Your task to perform on an android device: Set the phone to "Do not disturb". Image 0: 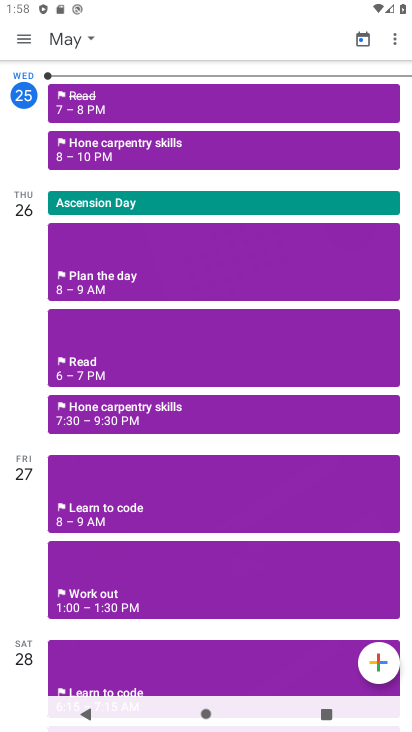
Step 0: click (125, 620)
Your task to perform on an android device: Set the phone to "Do not disturb". Image 1: 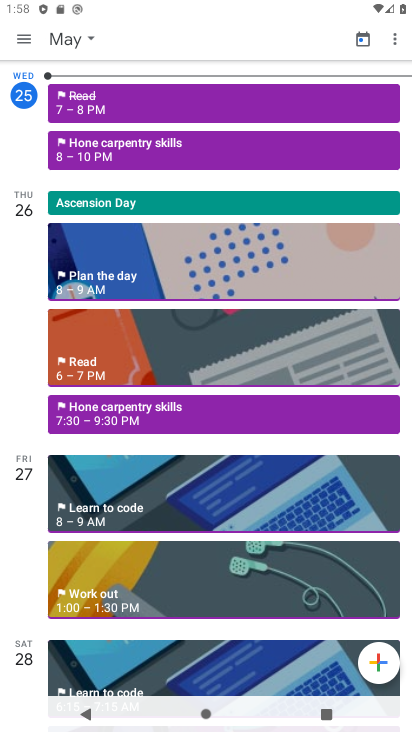
Step 1: press home button
Your task to perform on an android device: Set the phone to "Do not disturb". Image 2: 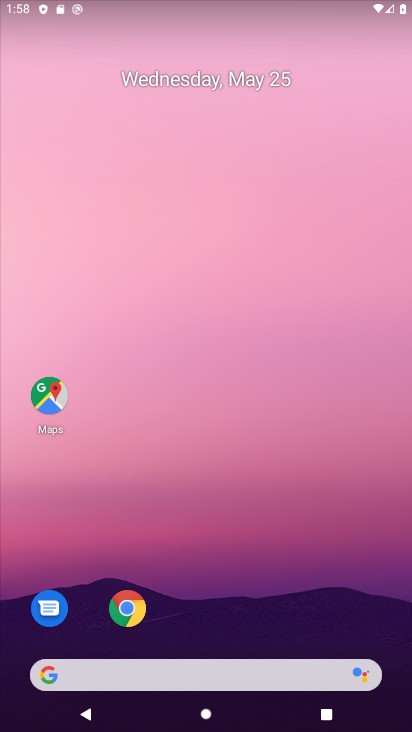
Step 2: drag from (382, 611) to (336, 210)
Your task to perform on an android device: Set the phone to "Do not disturb". Image 3: 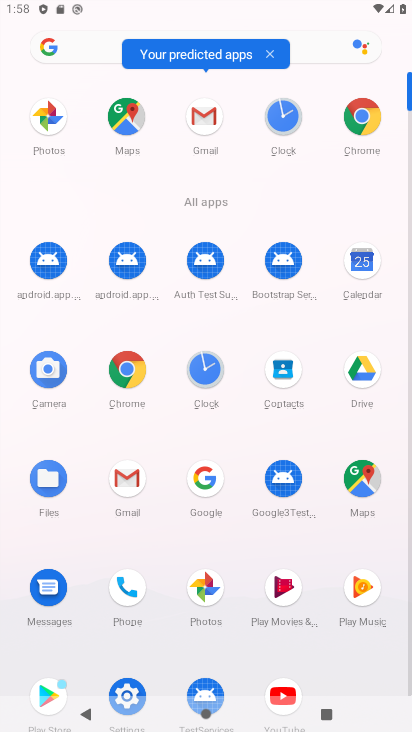
Step 3: click (408, 686)
Your task to perform on an android device: Set the phone to "Do not disturb". Image 4: 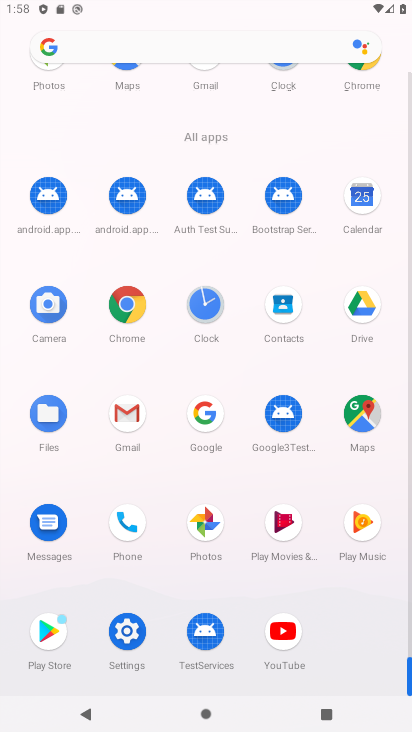
Step 4: click (125, 633)
Your task to perform on an android device: Set the phone to "Do not disturb". Image 5: 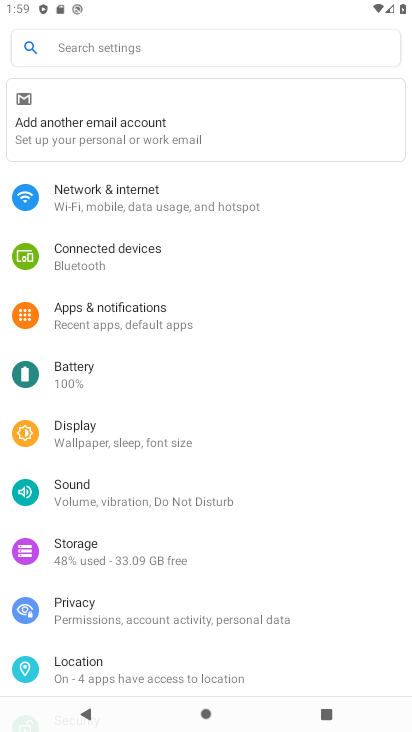
Step 5: click (93, 497)
Your task to perform on an android device: Set the phone to "Do not disturb". Image 6: 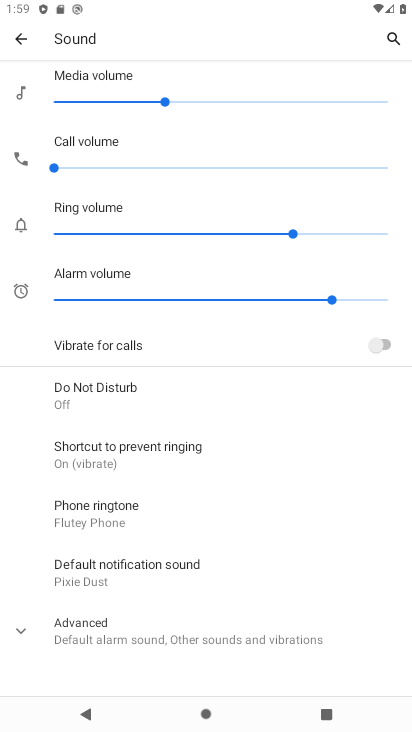
Step 6: click (84, 386)
Your task to perform on an android device: Set the phone to "Do not disturb". Image 7: 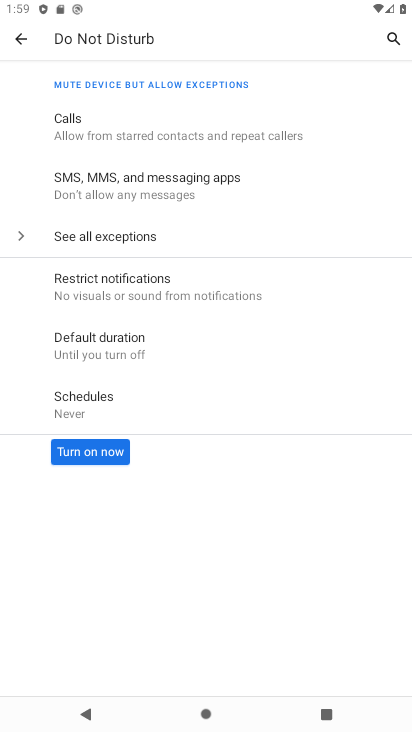
Step 7: click (80, 458)
Your task to perform on an android device: Set the phone to "Do not disturb". Image 8: 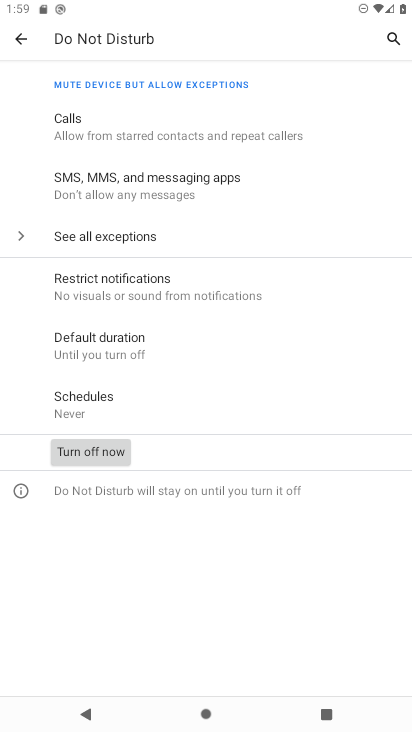
Step 8: task complete